Your task to perform on an android device: turn on translation in the chrome app Image 0: 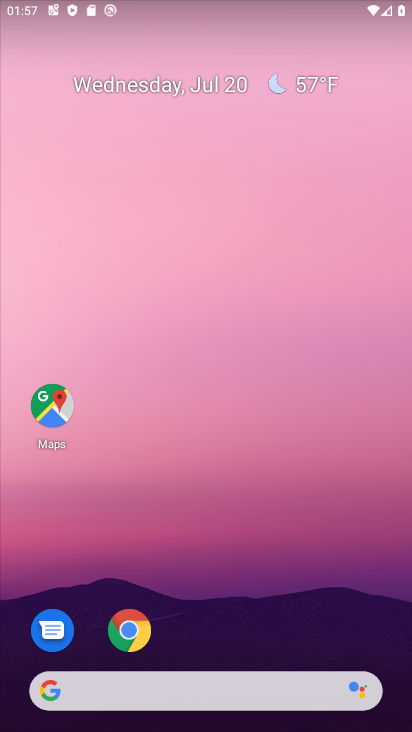
Step 0: drag from (309, 602) to (333, 115)
Your task to perform on an android device: turn on translation in the chrome app Image 1: 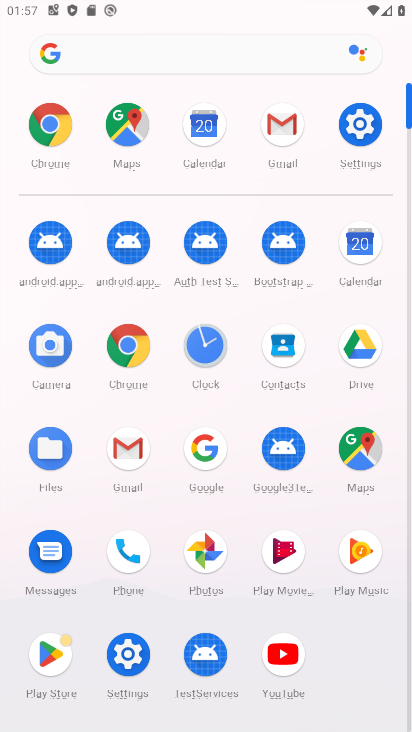
Step 1: click (133, 345)
Your task to perform on an android device: turn on translation in the chrome app Image 2: 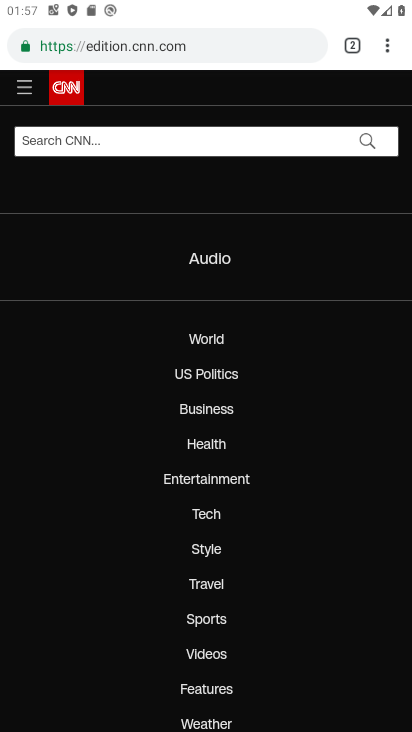
Step 2: click (396, 42)
Your task to perform on an android device: turn on translation in the chrome app Image 3: 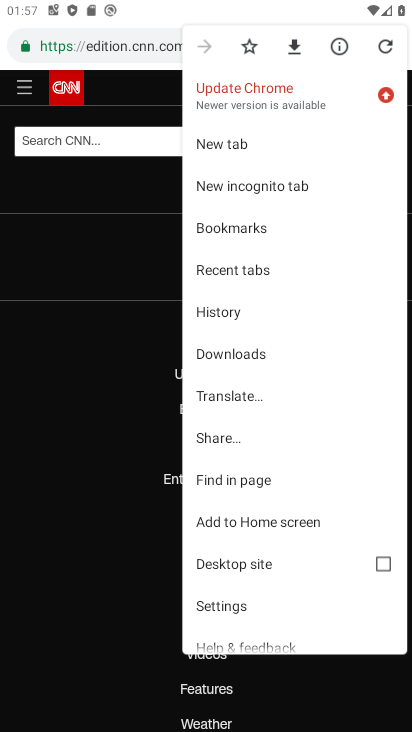
Step 3: click (241, 604)
Your task to perform on an android device: turn on translation in the chrome app Image 4: 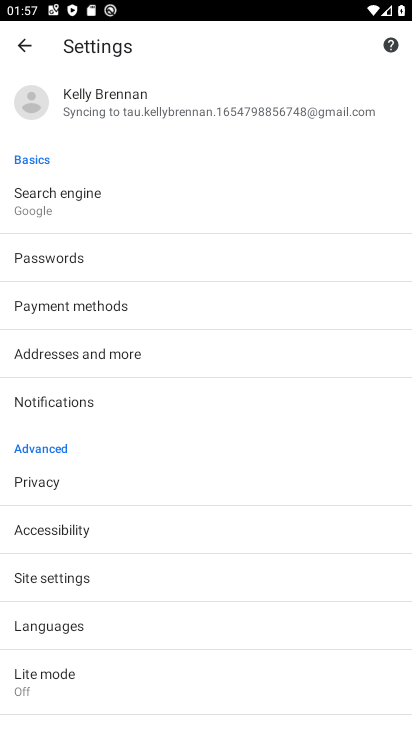
Step 4: drag from (177, 583) to (298, 172)
Your task to perform on an android device: turn on translation in the chrome app Image 5: 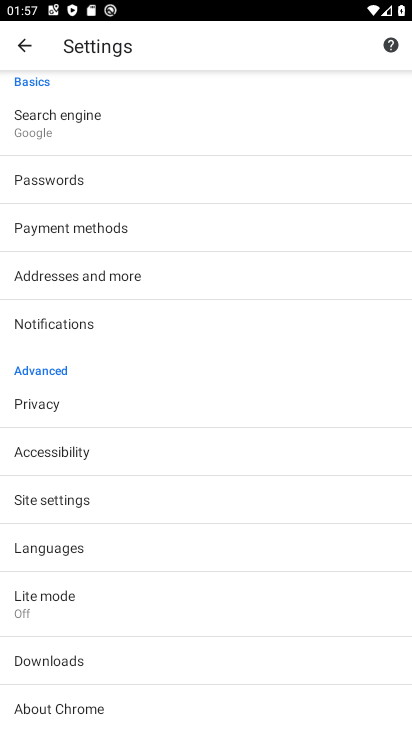
Step 5: click (38, 559)
Your task to perform on an android device: turn on translation in the chrome app Image 6: 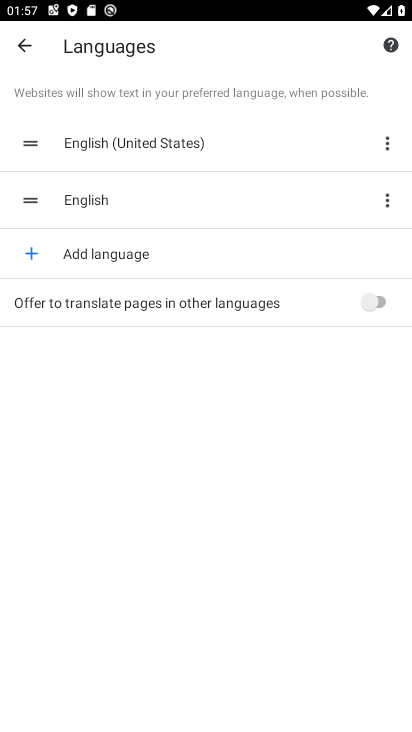
Step 6: click (357, 310)
Your task to perform on an android device: turn on translation in the chrome app Image 7: 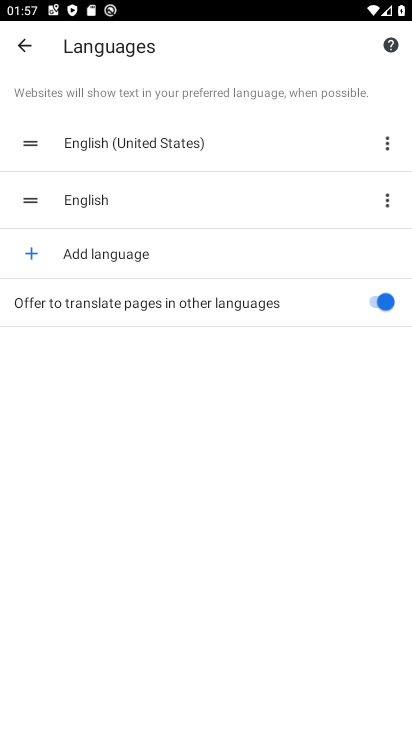
Step 7: task complete